Your task to perform on an android device: change notifications settings Image 0: 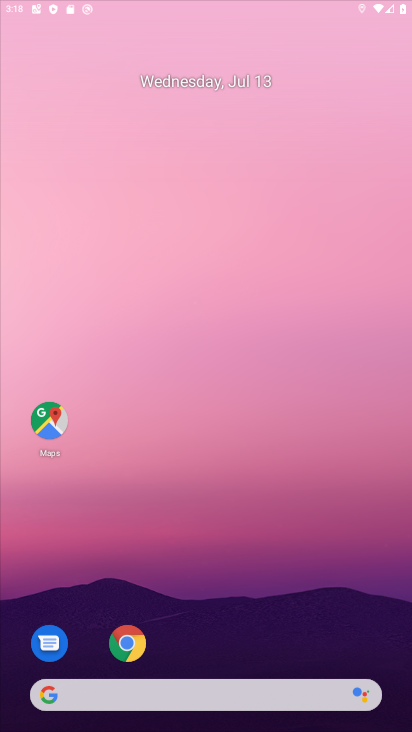
Step 0: click (229, 25)
Your task to perform on an android device: change notifications settings Image 1: 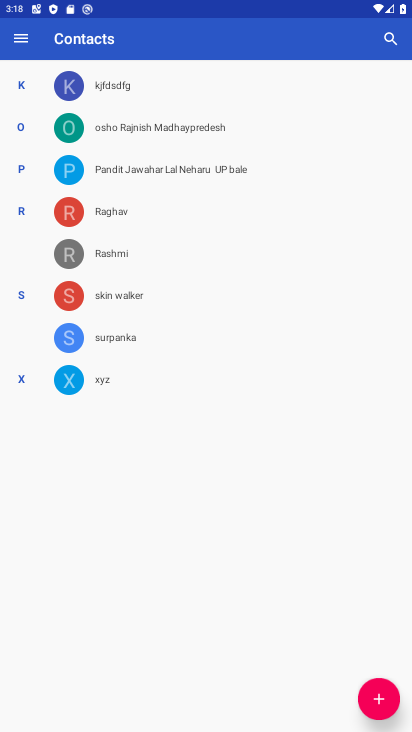
Step 1: press home button
Your task to perform on an android device: change notifications settings Image 2: 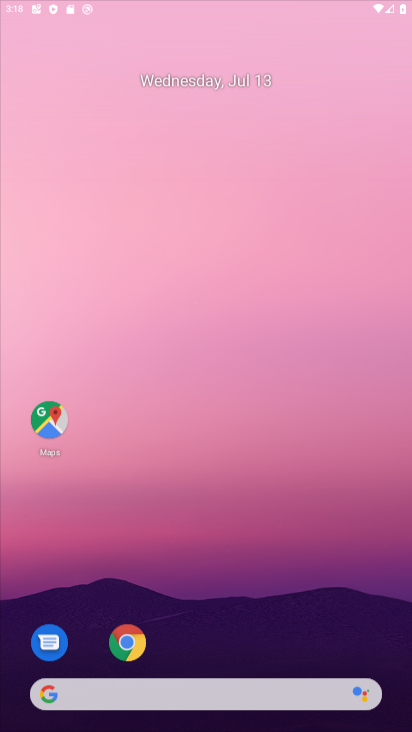
Step 2: drag from (124, 541) to (190, 1)
Your task to perform on an android device: change notifications settings Image 3: 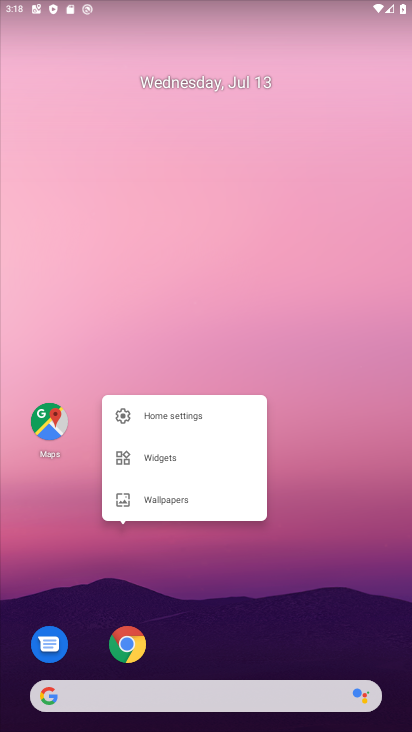
Step 3: click (195, 625)
Your task to perform on an android device: change notifications settings Image 4: 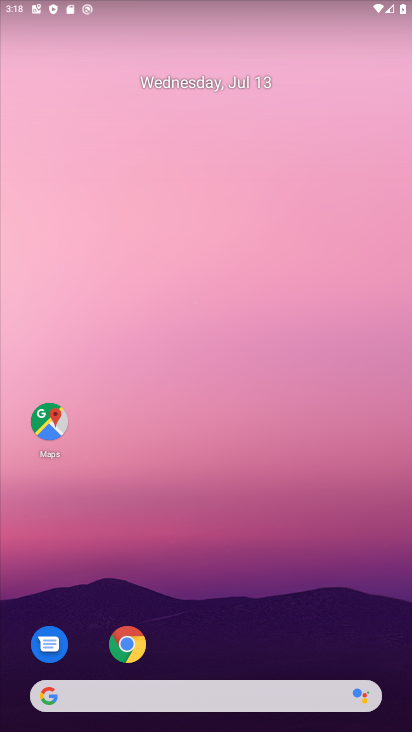
Step 4: drag from (207, 638) to (271, 43)
Your task to perform on an android device: change notifications settings Image 5: 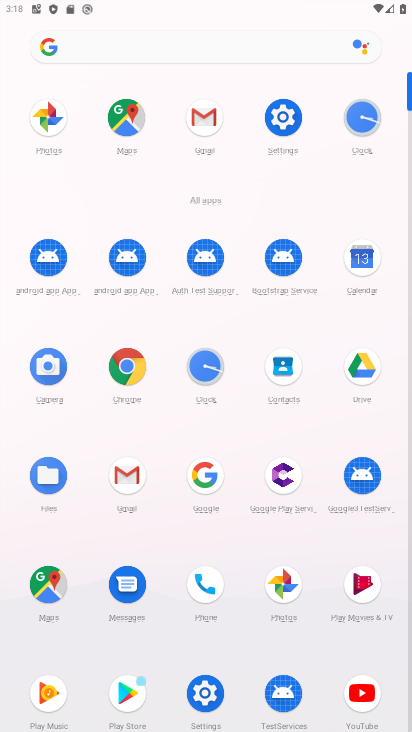
Step 5: click (285, 111)
Your task to perform on an android device: change notifications settings Image 6: 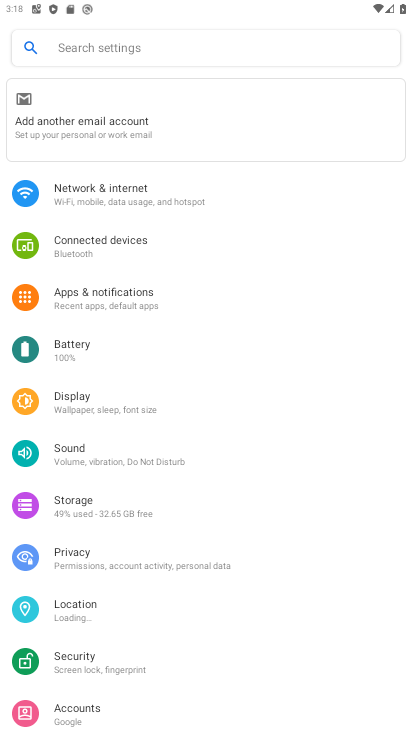
Step 6: click (125, 303)
Your task to perform on an android device: change notifications settings Image 7: 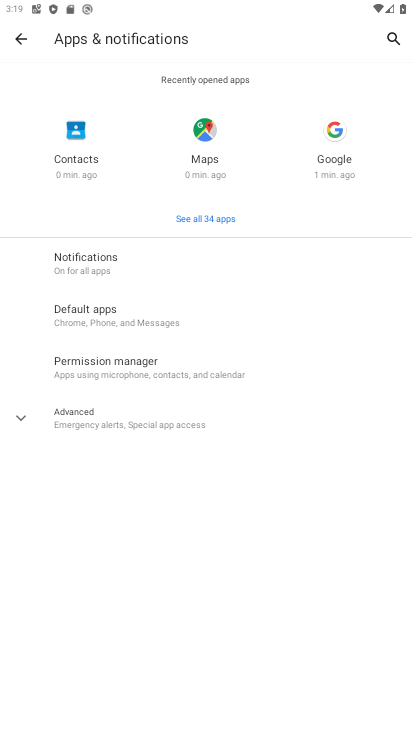
Step 7: click (89, 261)
Your task to perform on an android device: change notifications settings Image 8: 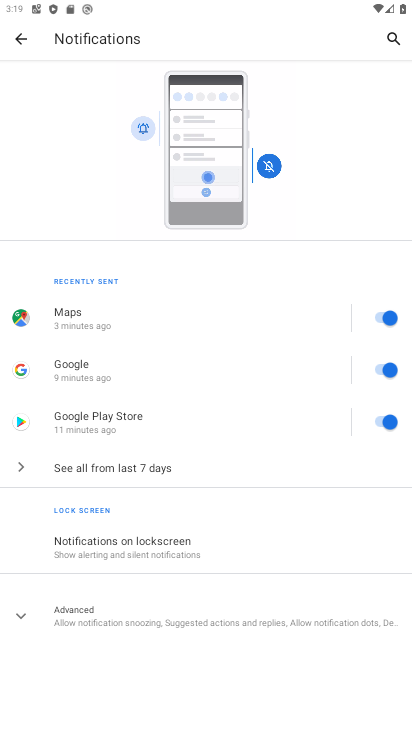
Step 8: click (378, 325)
Your task to perform on an android device: change notifications settings Image 9: 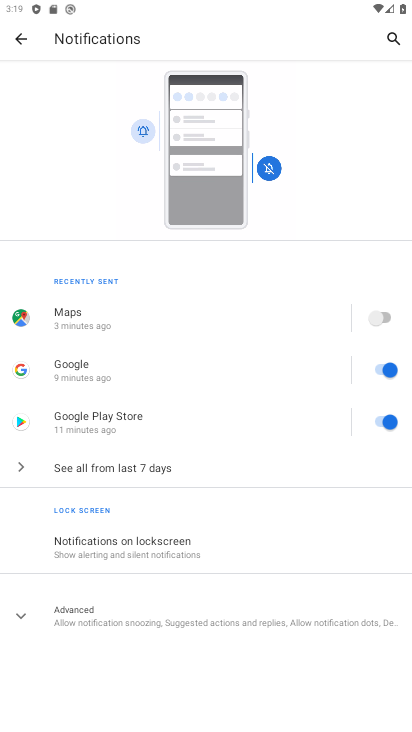
Step 9: task complete